Your task to perform on an android device: Clear the shopping cart on walmart. Add "amazon basics triple a" to the cart on walmart, then select checkout. Image 0: 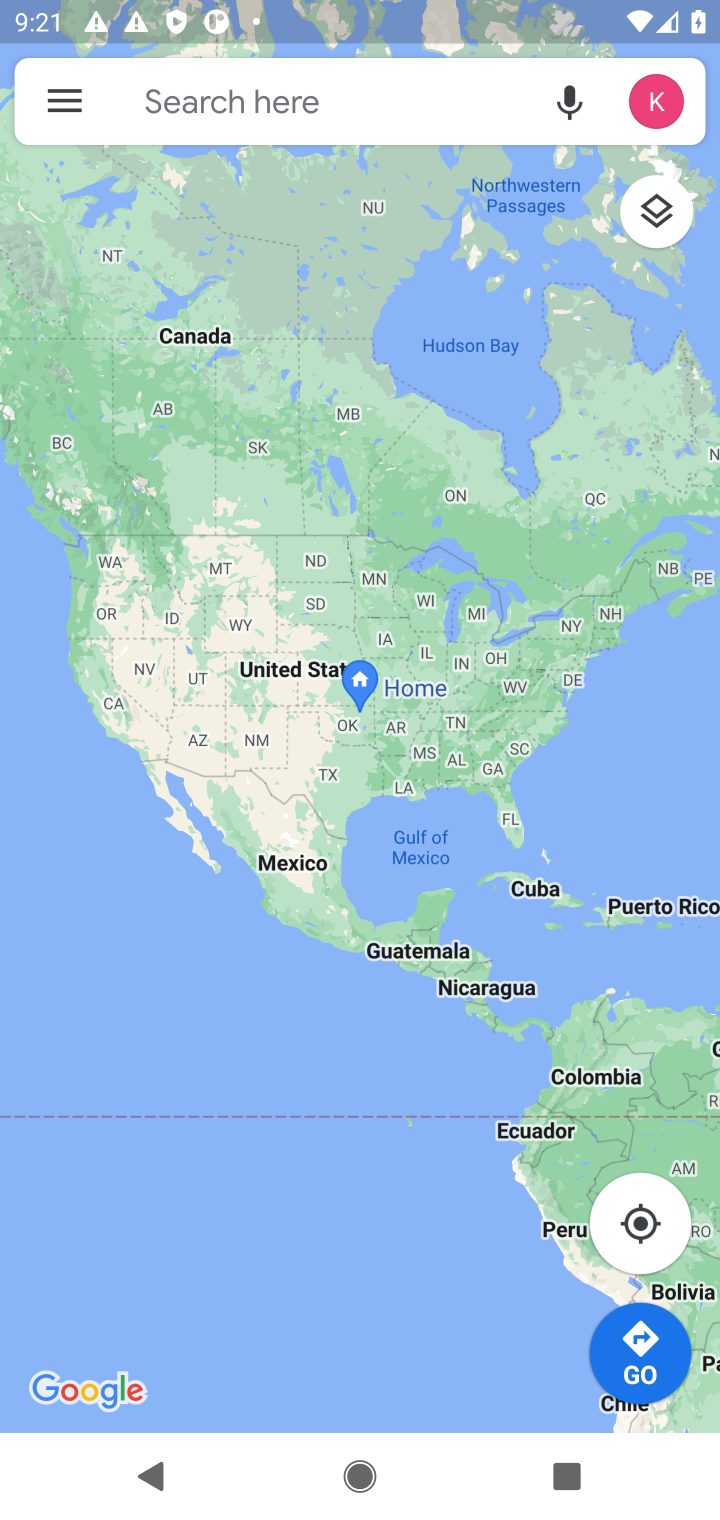
Step 0: press home button
Your task to perform on an android device: Clear the shopping cart on walmart. Add "amazon basics triple a" to the cart on walmart, then select checkout. Image 1: 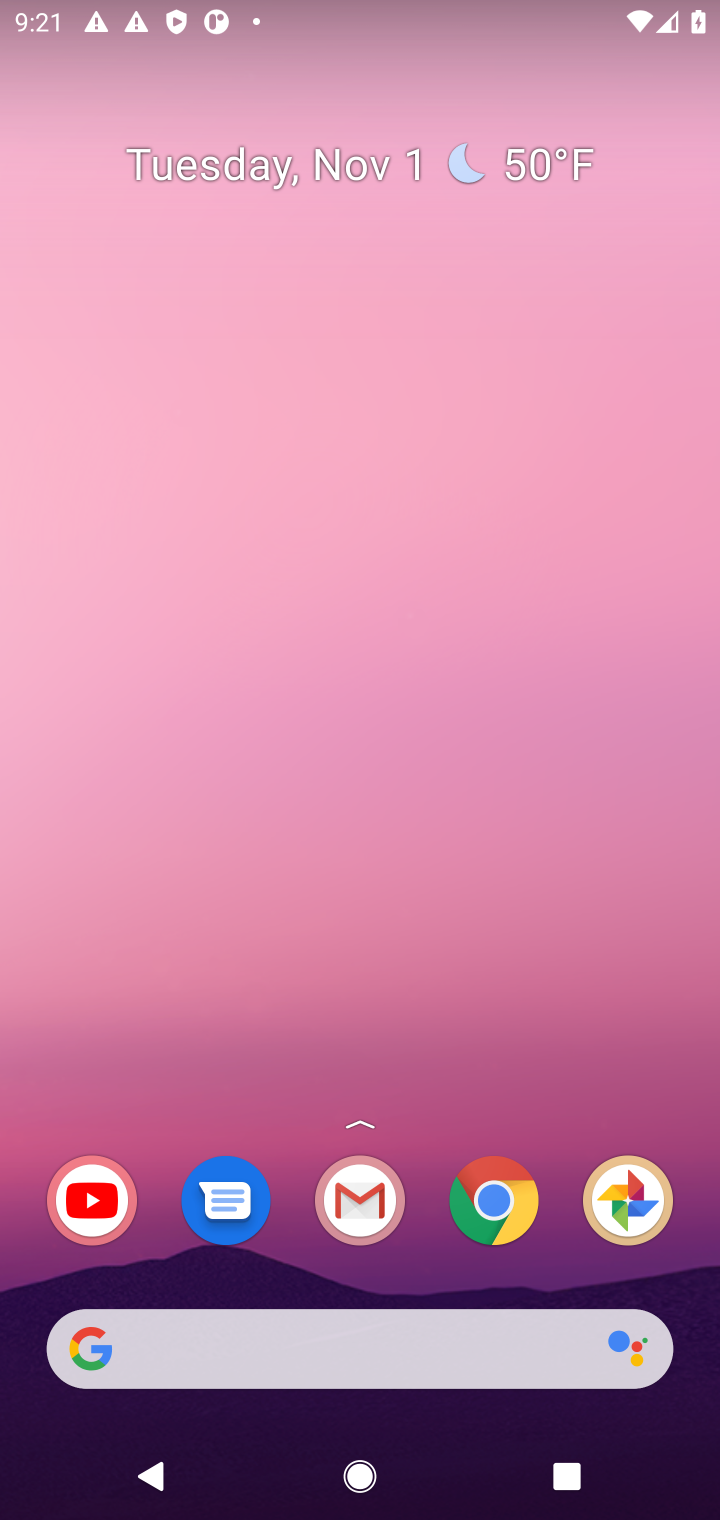
Step 1: click (452, 1366)
Your task to perform on an android device: Clear the shopping cart on walmart. Add "amazon basics triple a" to the cart on walmart, then select checkout. Image 2: 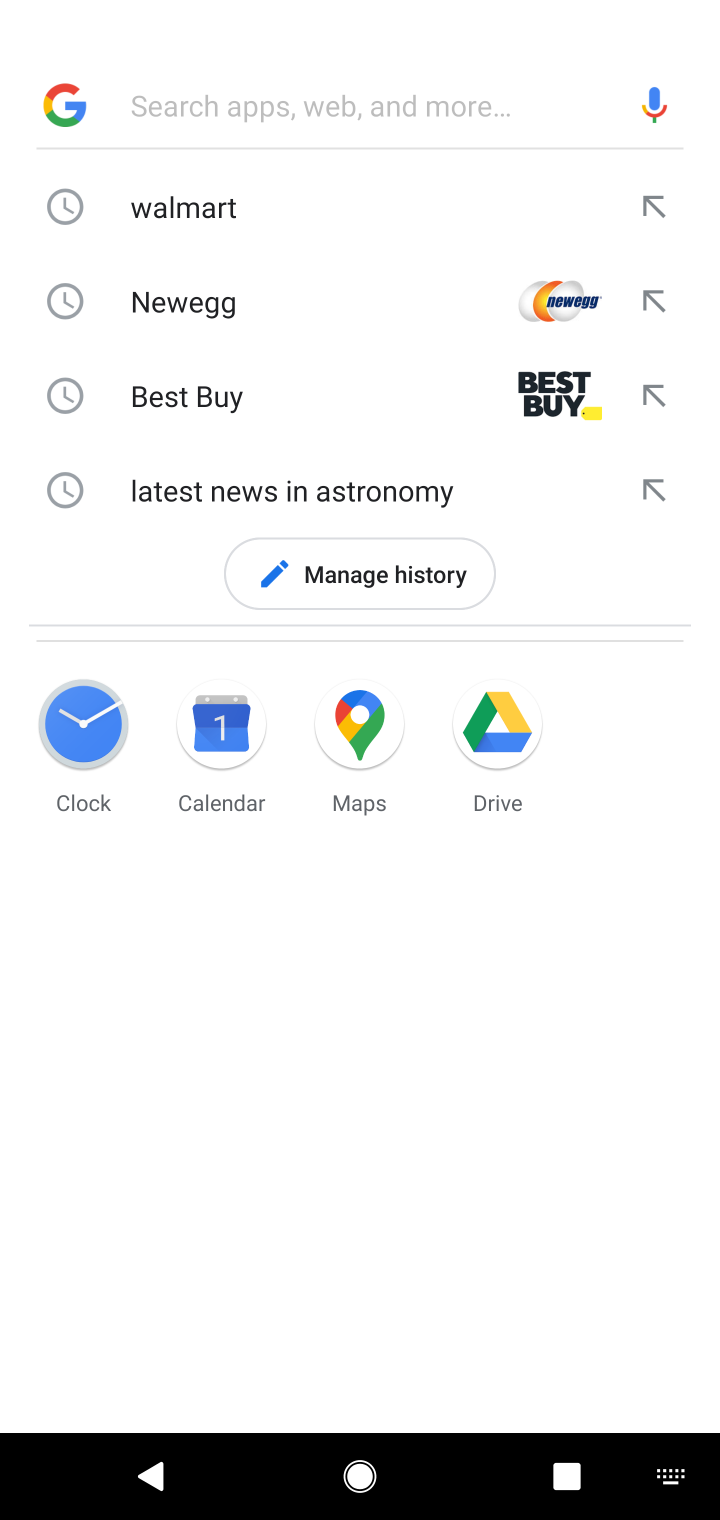
Step 2: type "amazon basics triple a"
Your task to perform on an android device: Clear the shopping cart on walmart. Add "amazon basics triple a" to the cart on walmart, then select checkout. Image 3: 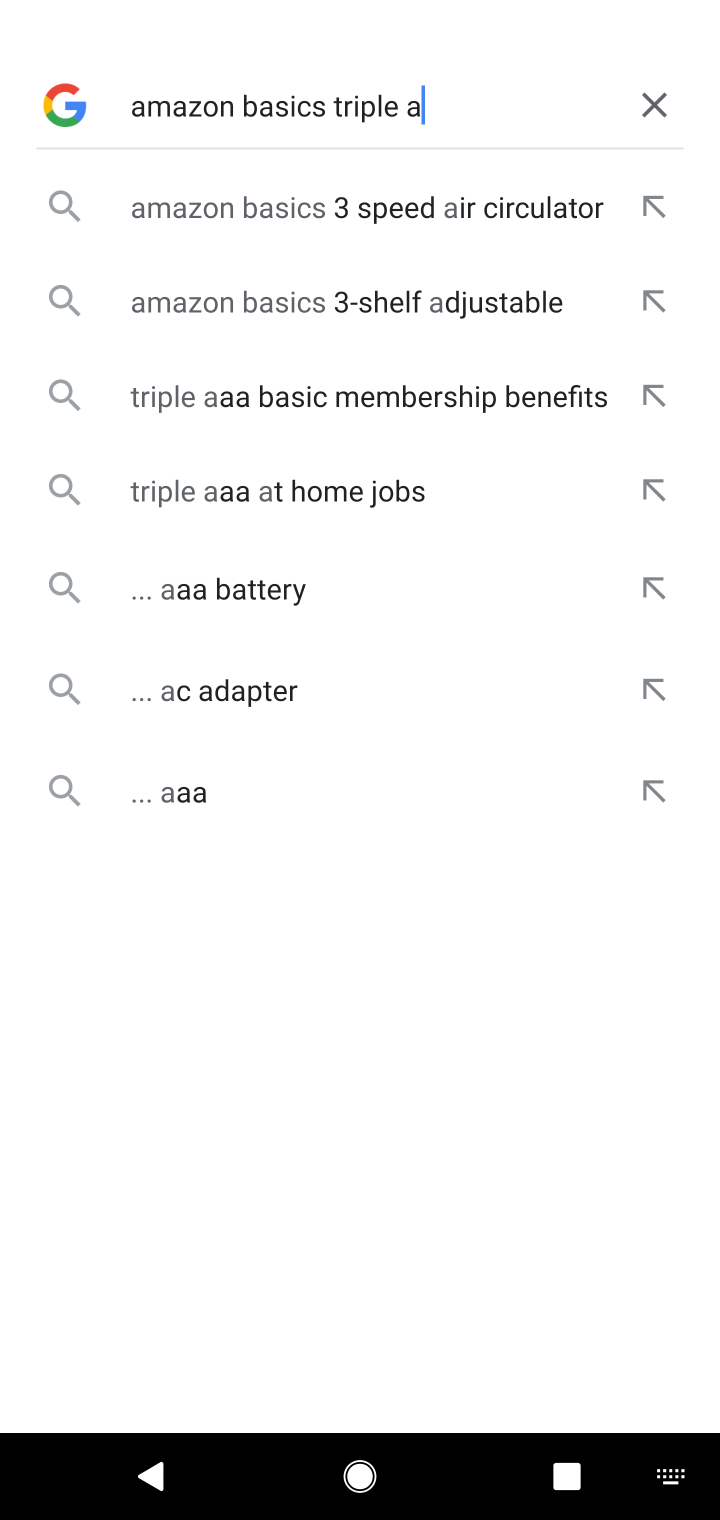
Step 3: type ""
Your task to perform on an android device: Clear the shopping cart on walmart. Add "amazon basics triple a" to the cart on walmart, then select checkout. Image 4: 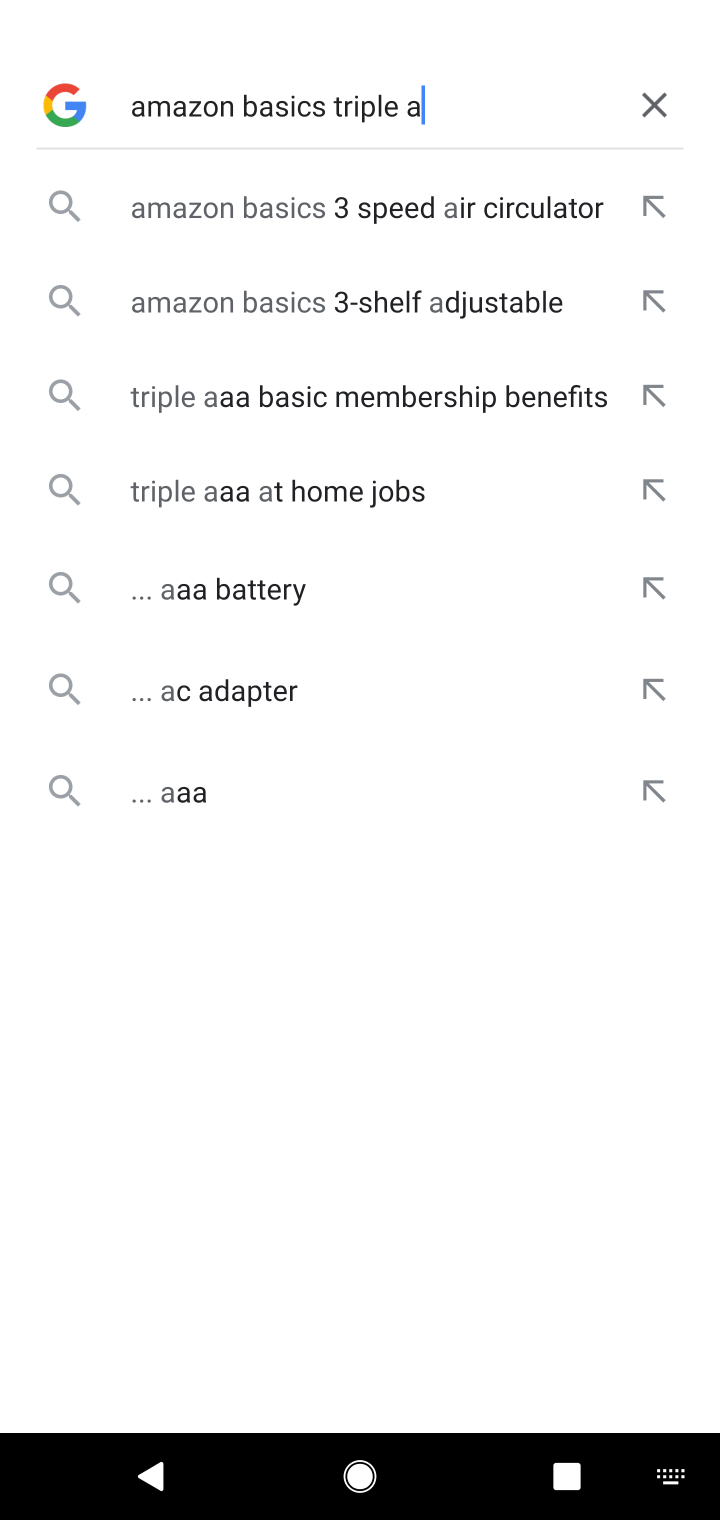
Step 4: click (638, 90)
Your task to perform on an android device: Clear the shopping cart on walmart. Add "amazon basics triple a" to the cart on walmart, then select checkout. Image 5: 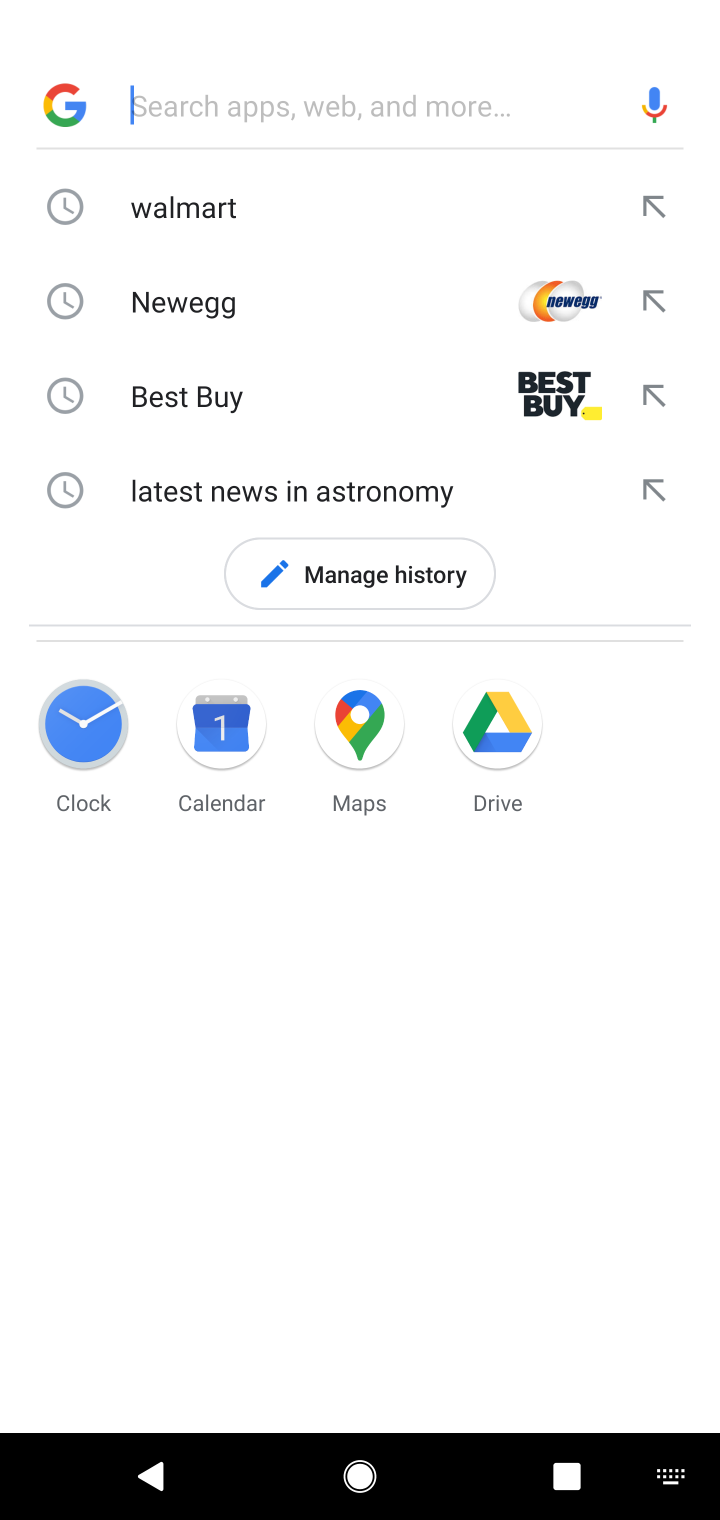
Step 5: type " walmart"
Your task to perform on an android device: Clear the shopping cart on walmart. Add "amazon basics triple a" to the cart on walmart, then select checkout. Image 6: 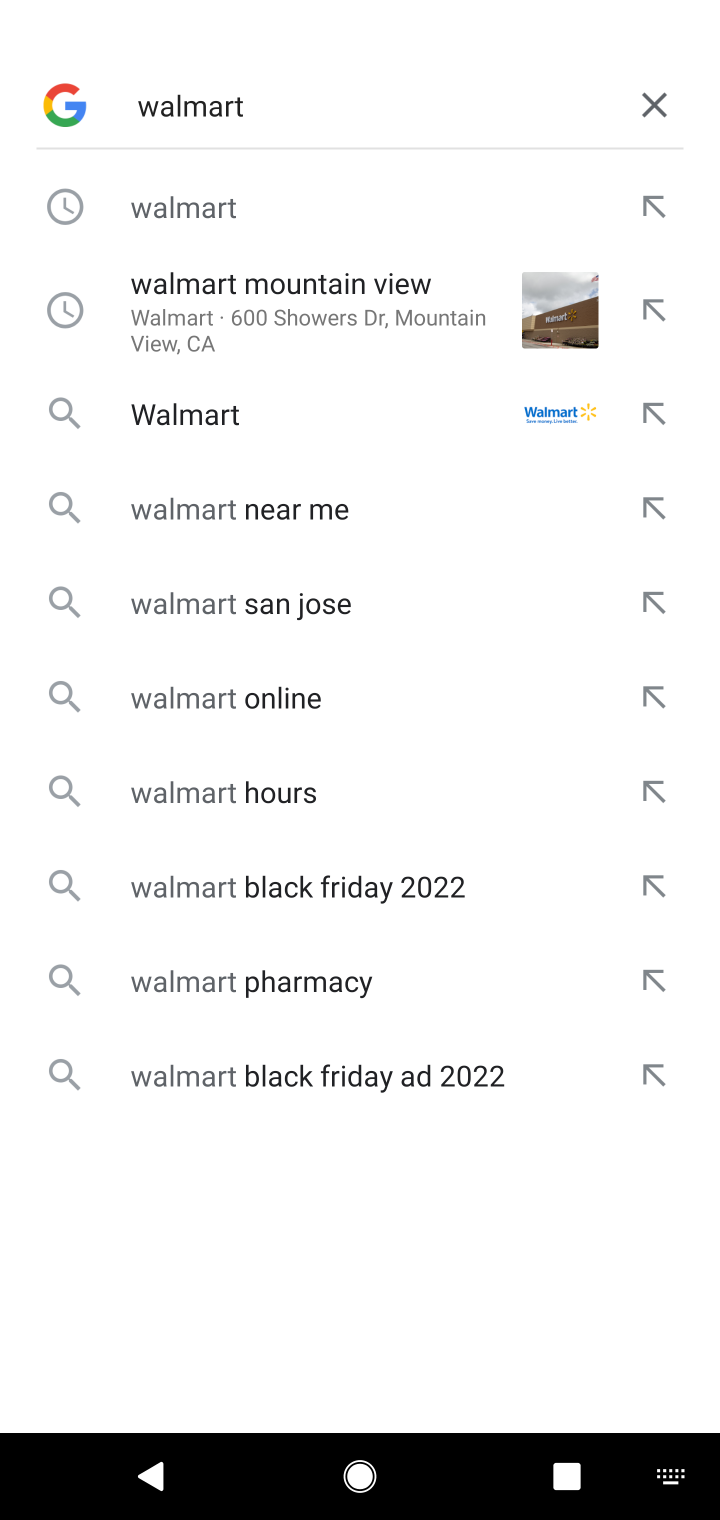
Step 6: click (356, 226)
Your task to perform on an android device: Clear the shopping cart on walmart. Add "amazon basics triple a" to the cart on walmart, then select checkout. Image 7: 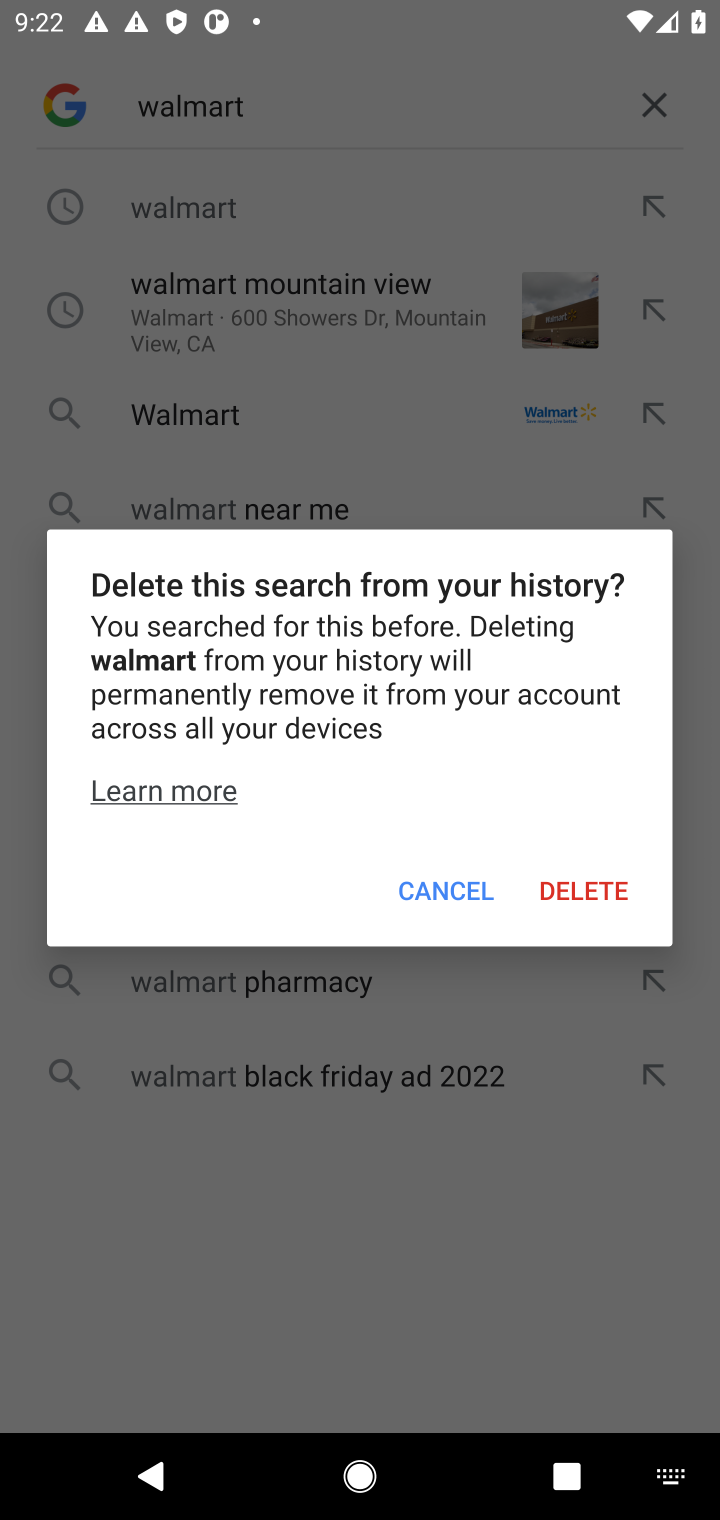
Step 7: click (387, 894)
Your task to perform on an android device: Clear the shopping cart on walmart. Add "amazon basics triple a" to the cart on walmart, then select checkout. Image 8: 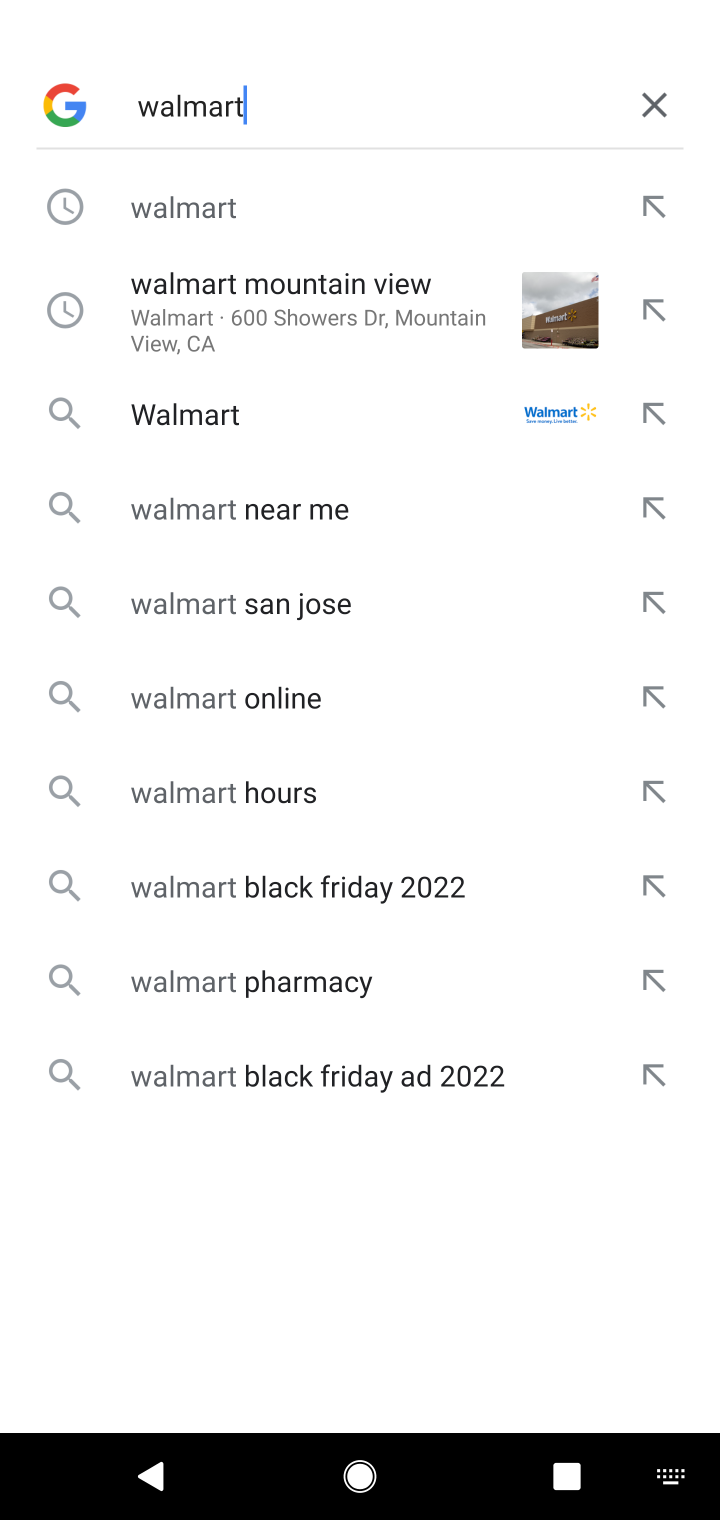
Step 8: click (183, 210)
Your task to perform on an android device: Clear the shopping cart on walmart. Add "amazon basics triple a" to the cart on walmart, then select checkout. Image 9: 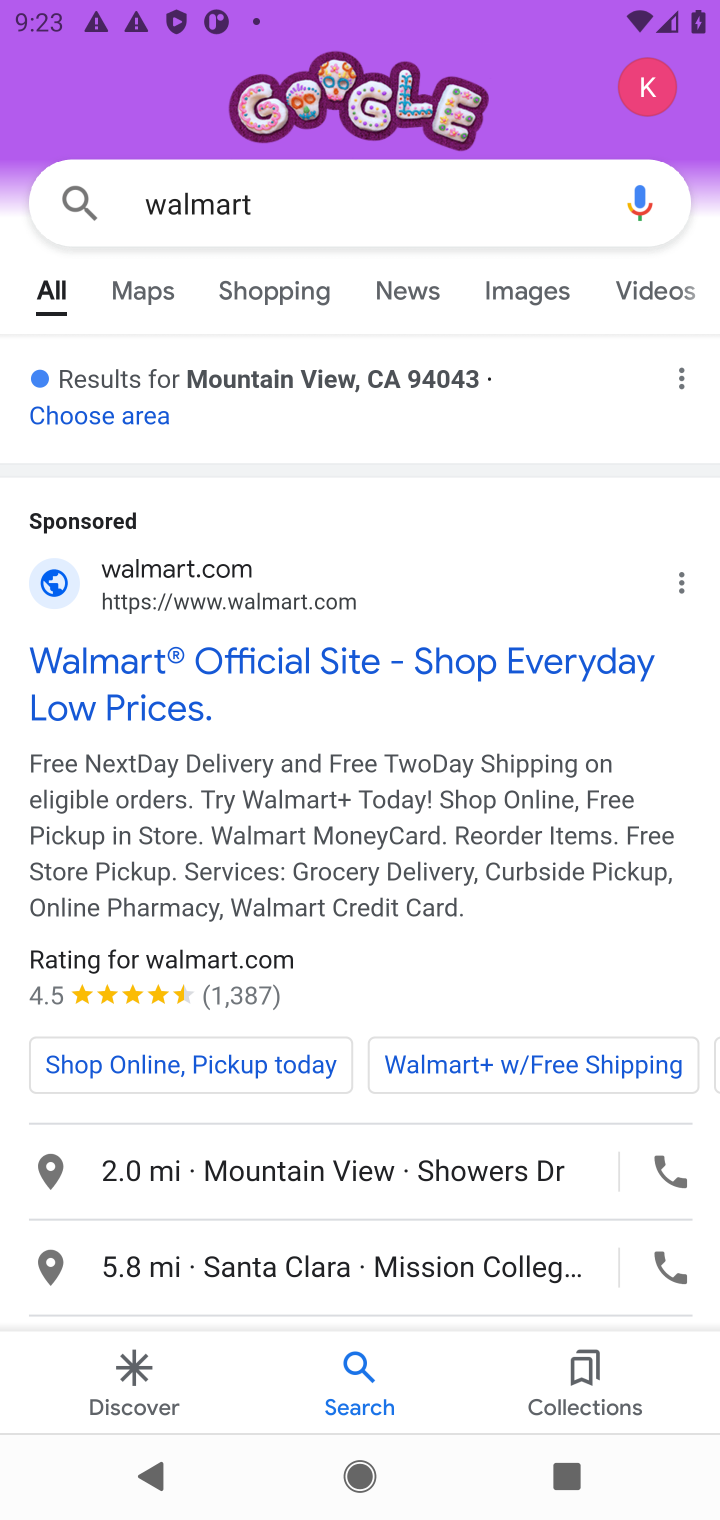
Step 9: click (213, 705)
Your task to perform on an android device: Clear the shopping cart on walmart. Add "amazon basics triple a" to the cart on walmart, then select checkout. Image 10: 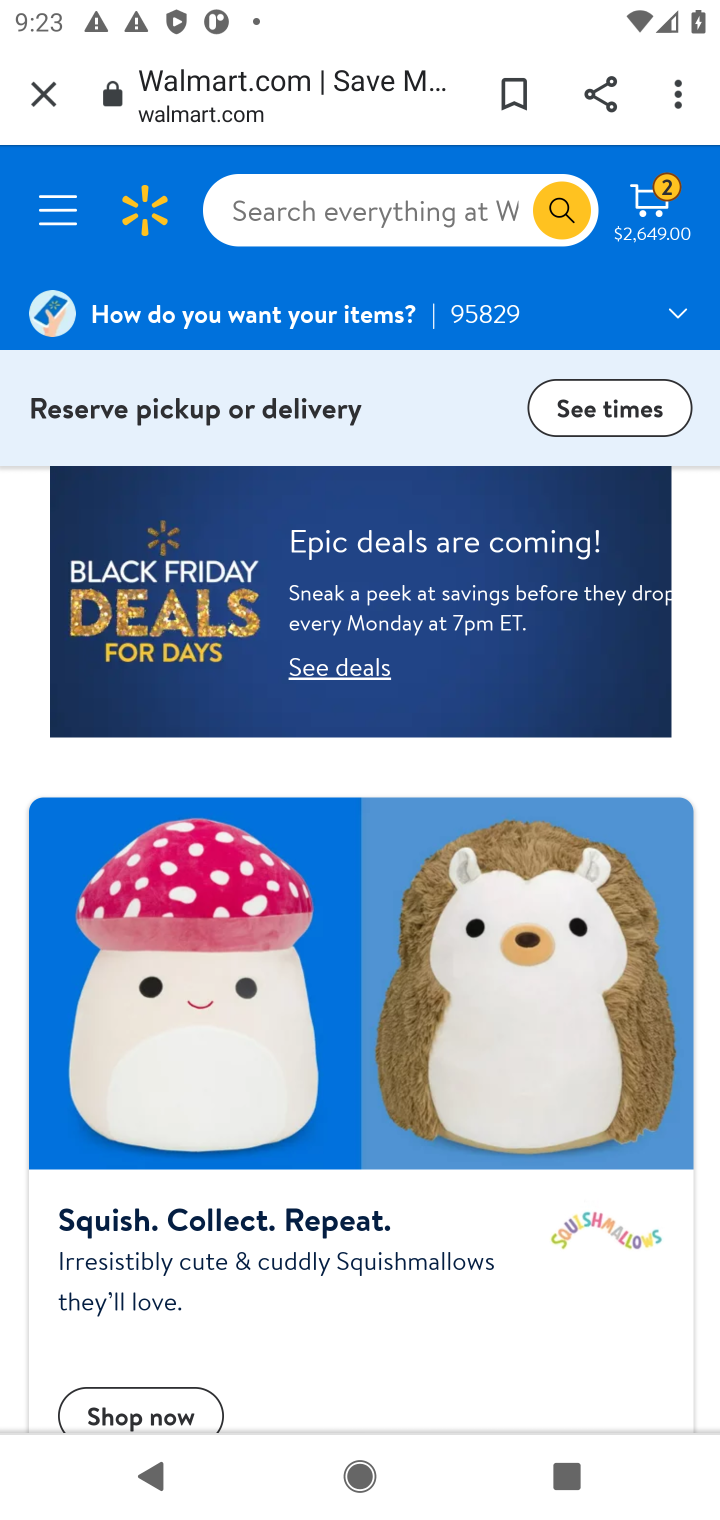
Step 10: click (240, 204)
Your task to perform on an android device: Clear the shopping cart on walmart. Add "amazon basics triple a" to the cart on walmart, then select checkout. Image 11: 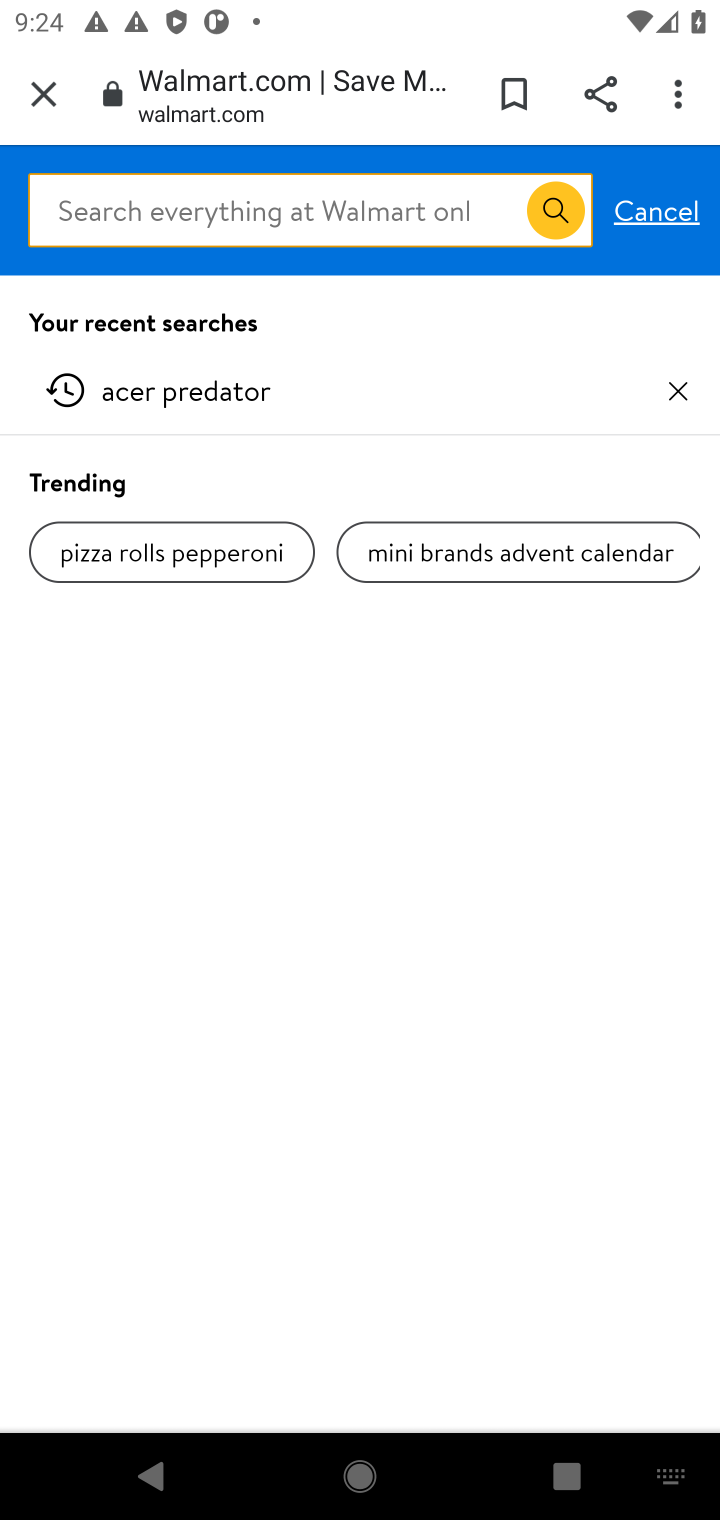
Step 11: type "amazon basics triple a"
Your task to perform on an android device: Clear the shopping cart on walmart. Add "amazon basics triple a" to the cart on walmart, then select checkout. Image 12: 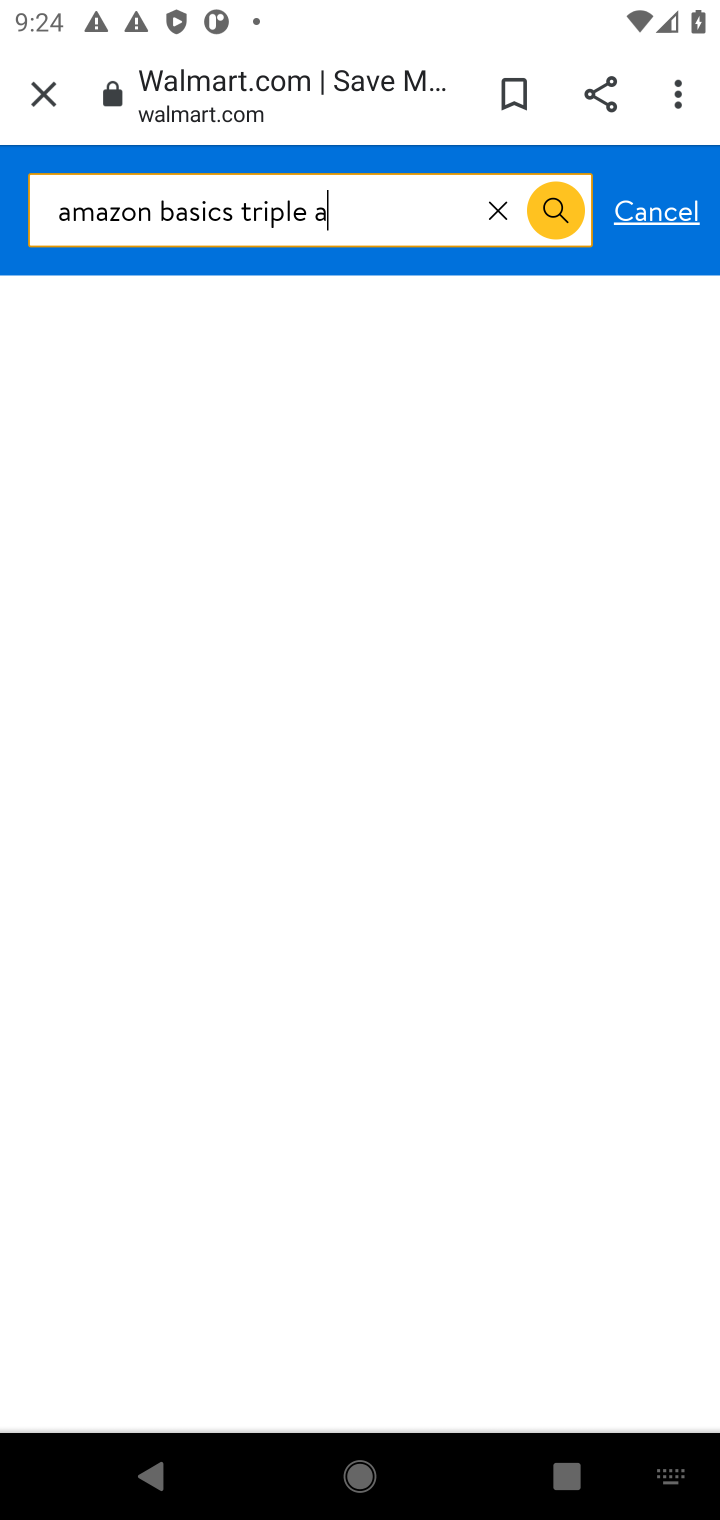
Step 12: click (573, 202)
Your task to perform on an android device: Clear the shopping cart on walmart. Add "amazon basics triple a" to the cart on walmart, then select checkout. Image 13: 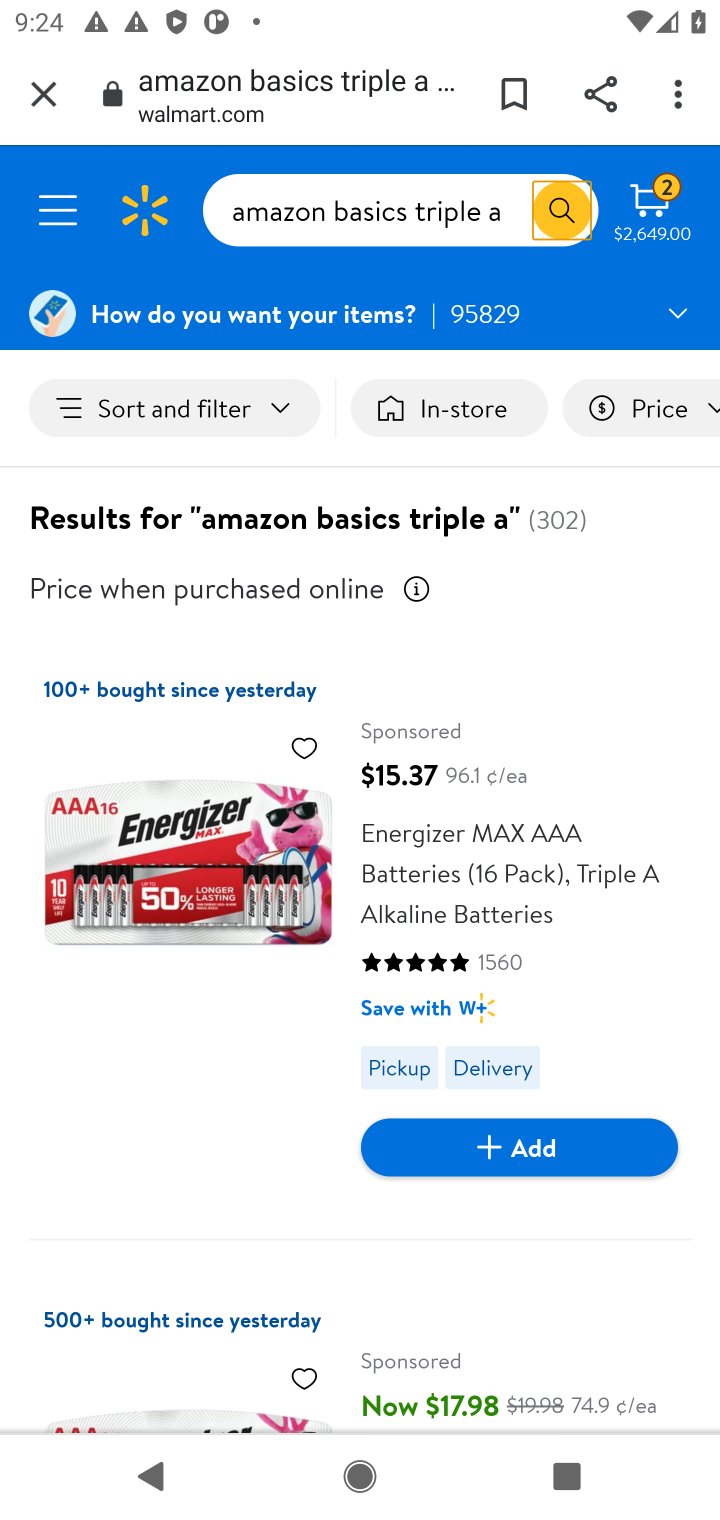
Step 13: click (547, 1139)
Your task to perform on an android device: Clear the shopping cart on walmart. Add "amazon basics triple a" to the cart on walmart, then select checkout. Image 14: 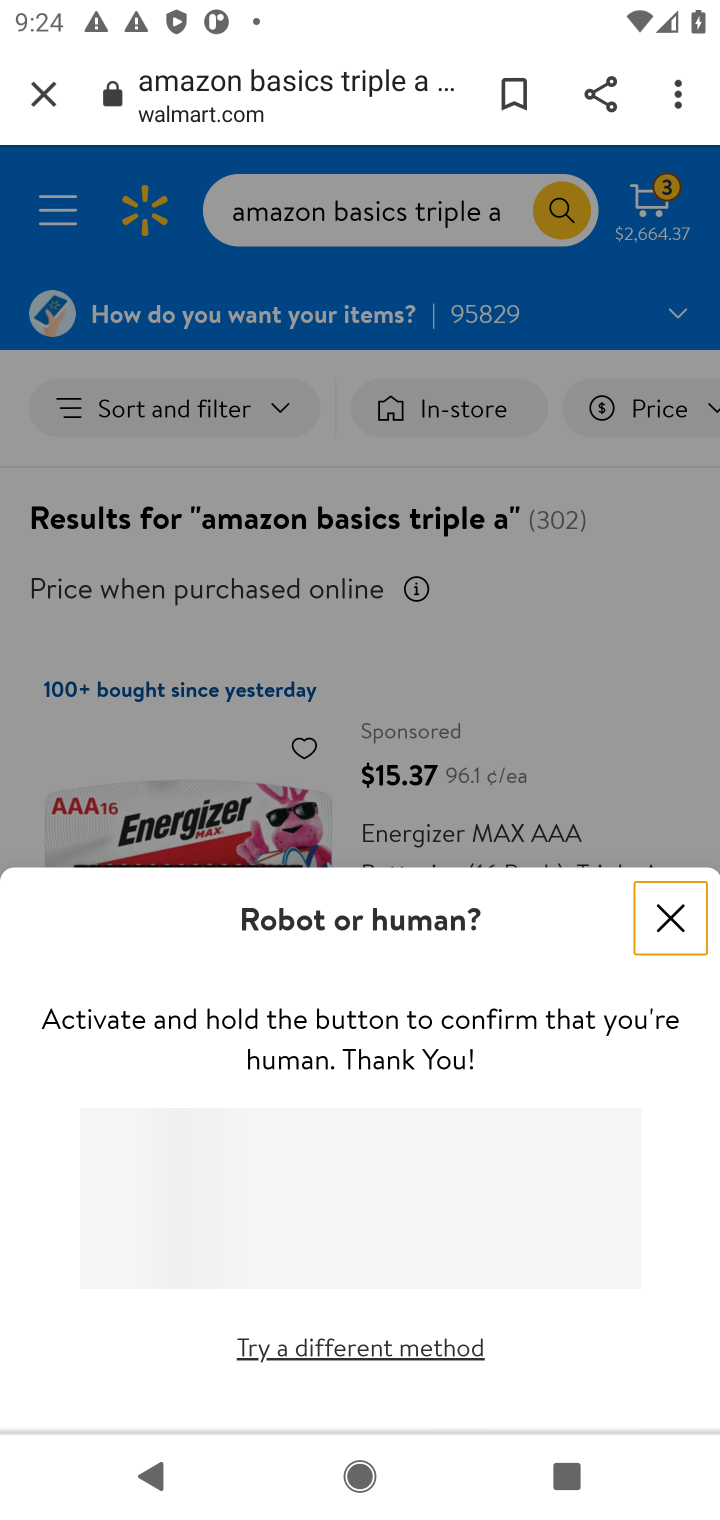
Step 14: click (667, 1084)
Your task to perform on an android device: Clear the shopping cart on walmart. Add "amazon basics triple a" to the cart on walmart, then select checkout. Image 15: 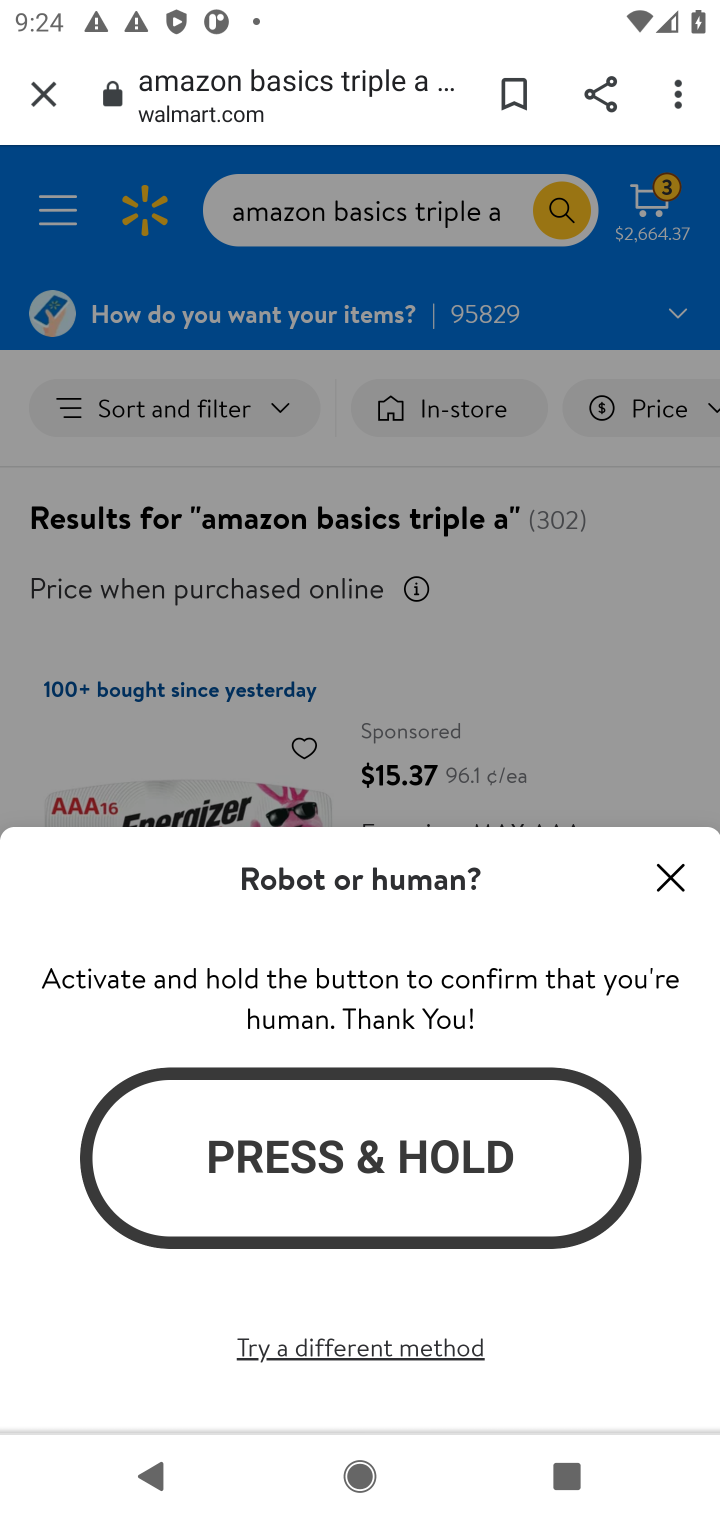
Step 15: click (659, 873)
Your task to perform on an android device: Clear the shopping cart on walmart. Add "amazon basics triple a" to the cart on walmart, then select checkout. Image 16: 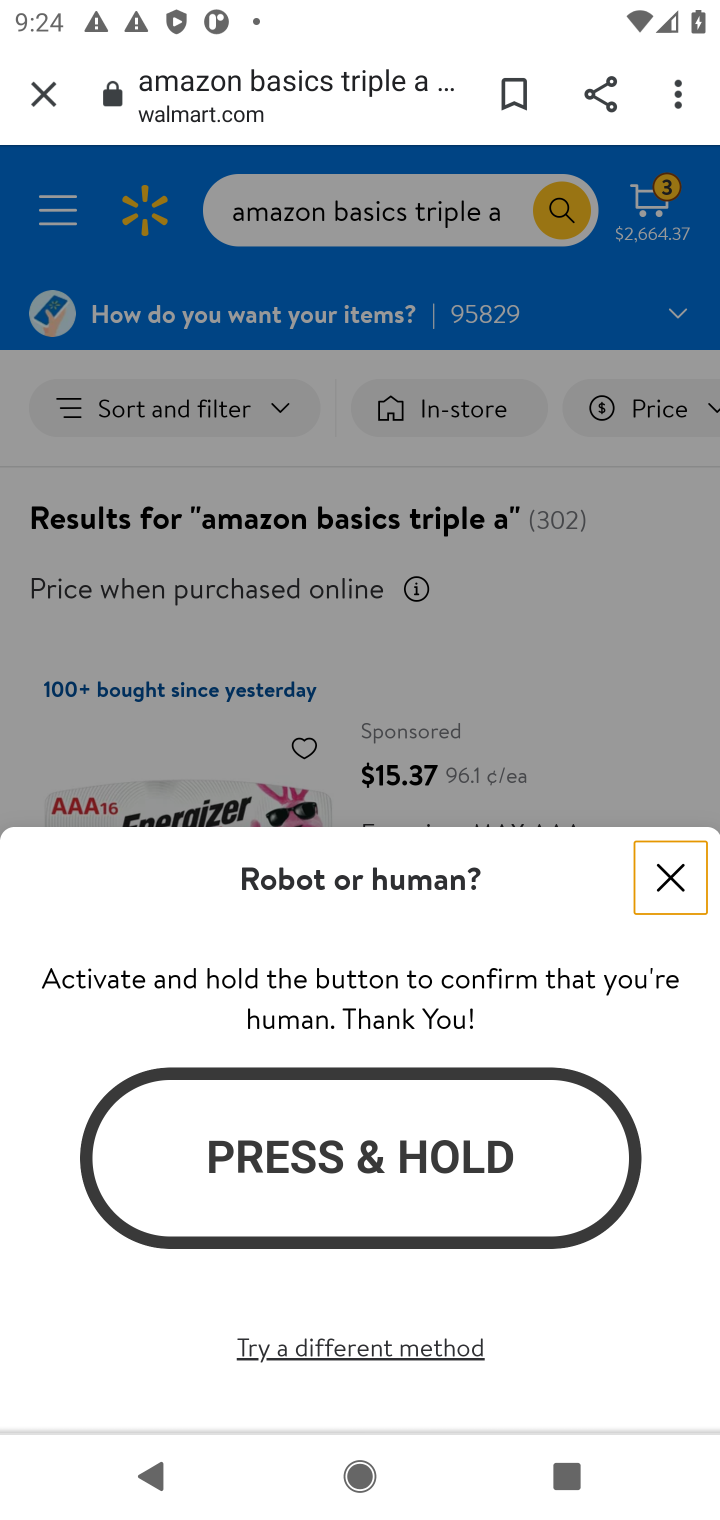
Step 16: click (675, 895)
Your task to perform on an android device: Clear the shopping cart on walmart. Add "amazon basics triple a" to the cart on walmart, then select checkout. Image 17: 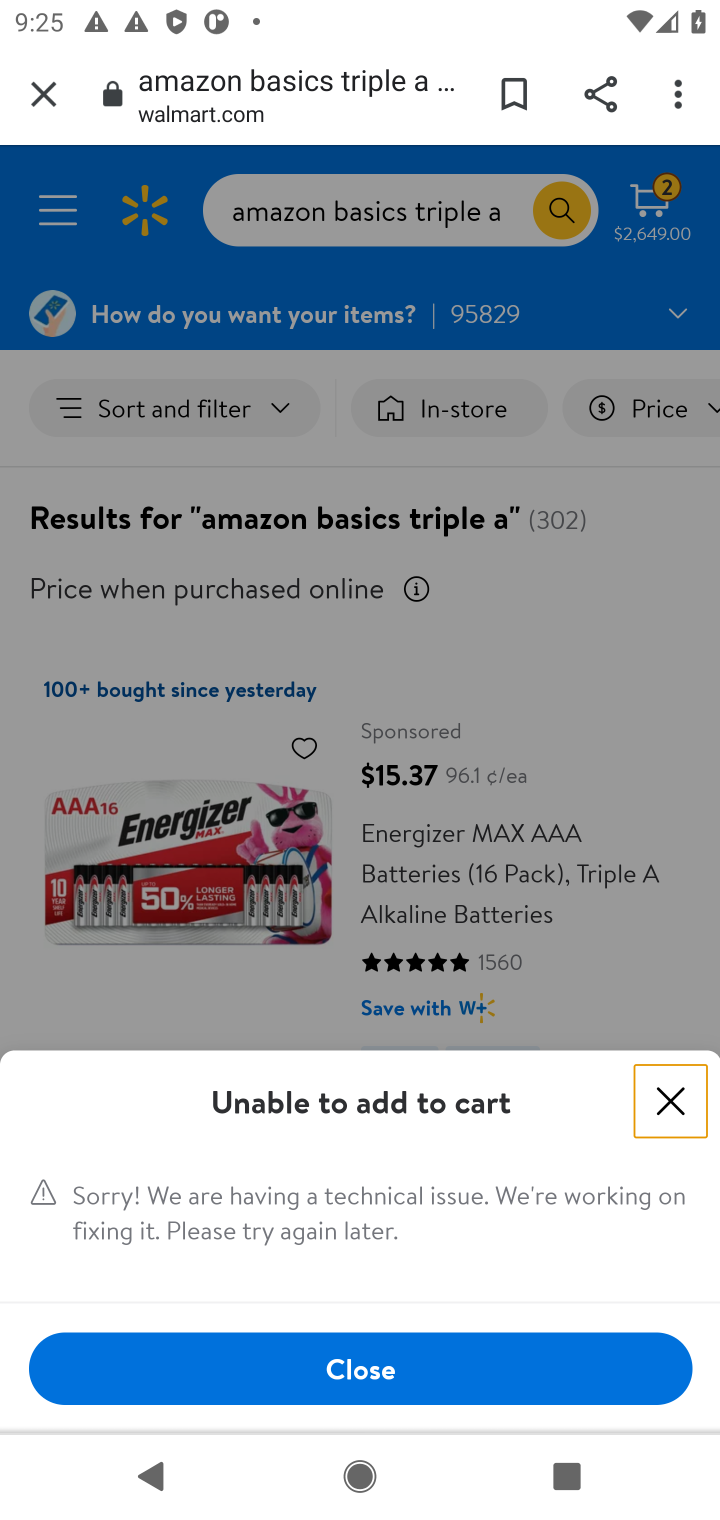
Step 17: click (663, 1109)
Your task to perform on an android device: Clear the shopping cart on walmart. Add "amazon basics triple a" to the cart on walmart, then select checkout. Image 18: 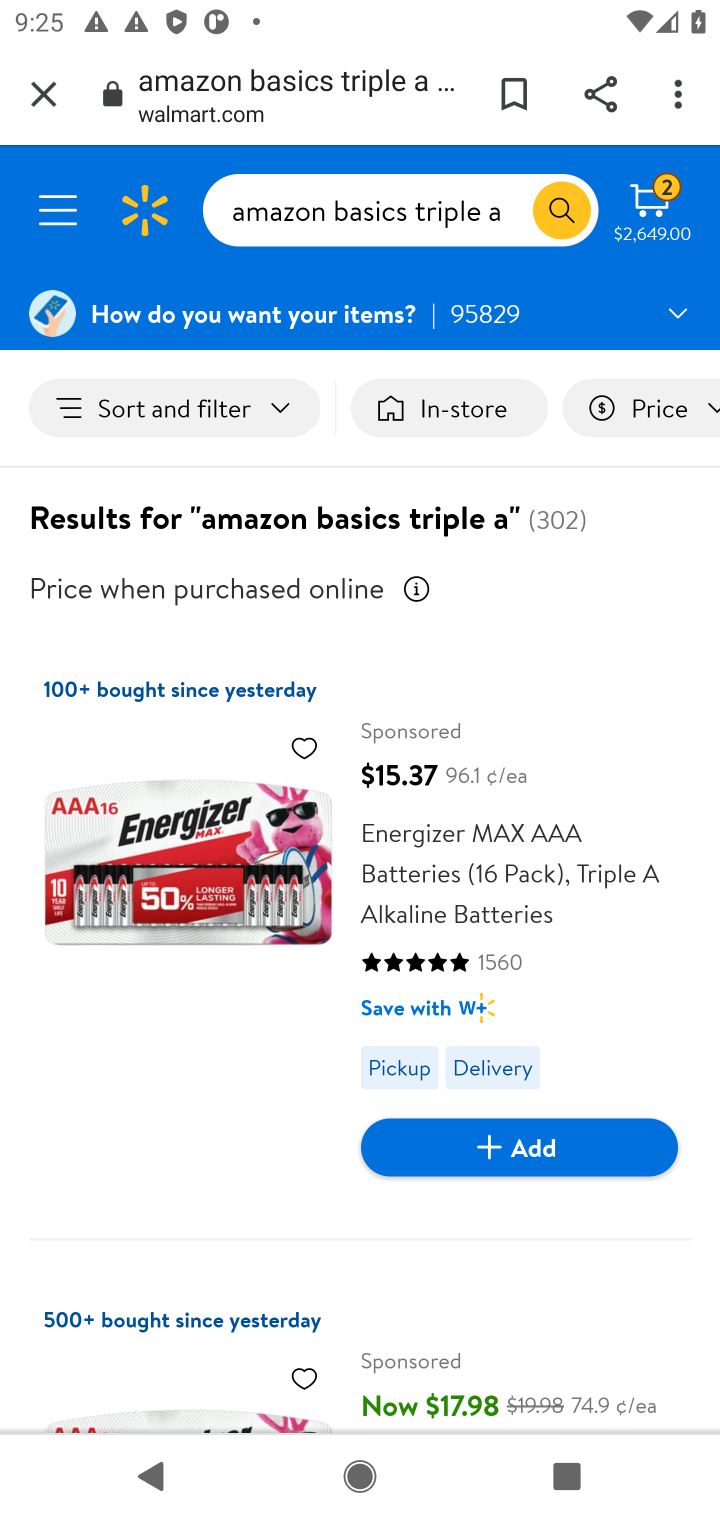
Step 18: click (653, 220)
Your task to perform on an android device: Clear the shopping cart on walmart. Add "amazon basics triple a" to the cart on walmart, then select checkout. Image 19: 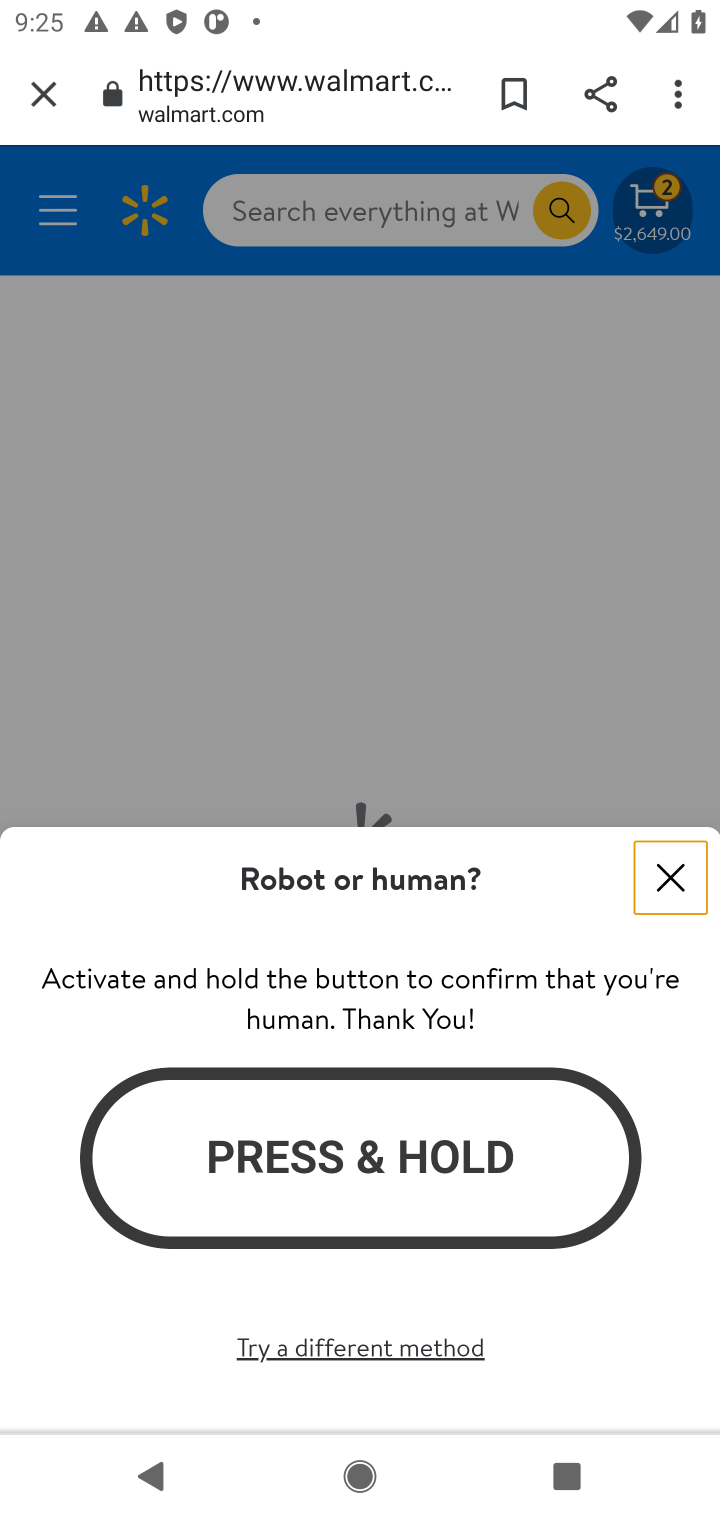
Step 19: click (658, 879)
Your task to perform on an android device: Clear the shopping cart on walmart. Add "amazon basics triple a" to the cart on walmart, then select checkout. Image 20: 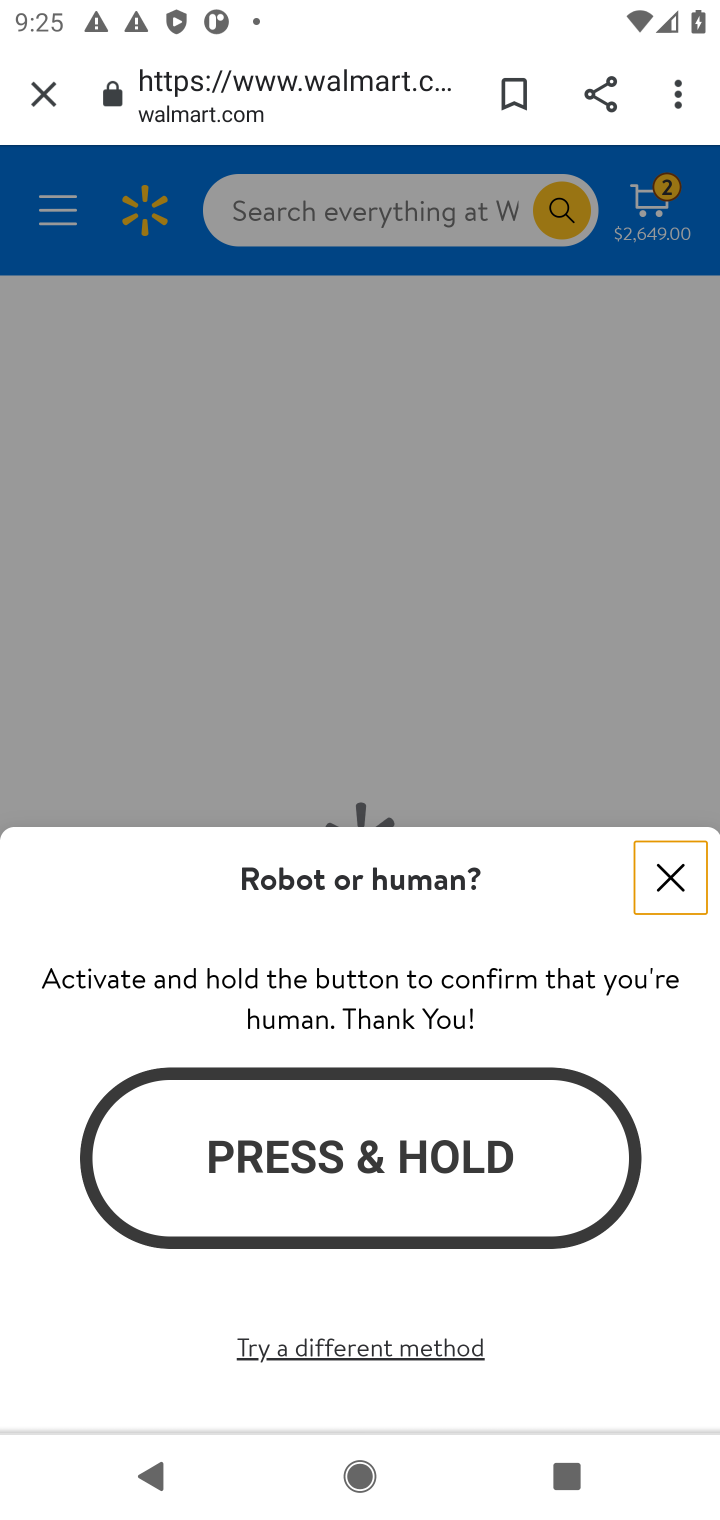
Step 20: click (668, 861)
Your task to perform on an android device: Clear the shopping cart on walmart. Add "amazon basics triple a" to the cart on walmart, then select checkout. Image 21: 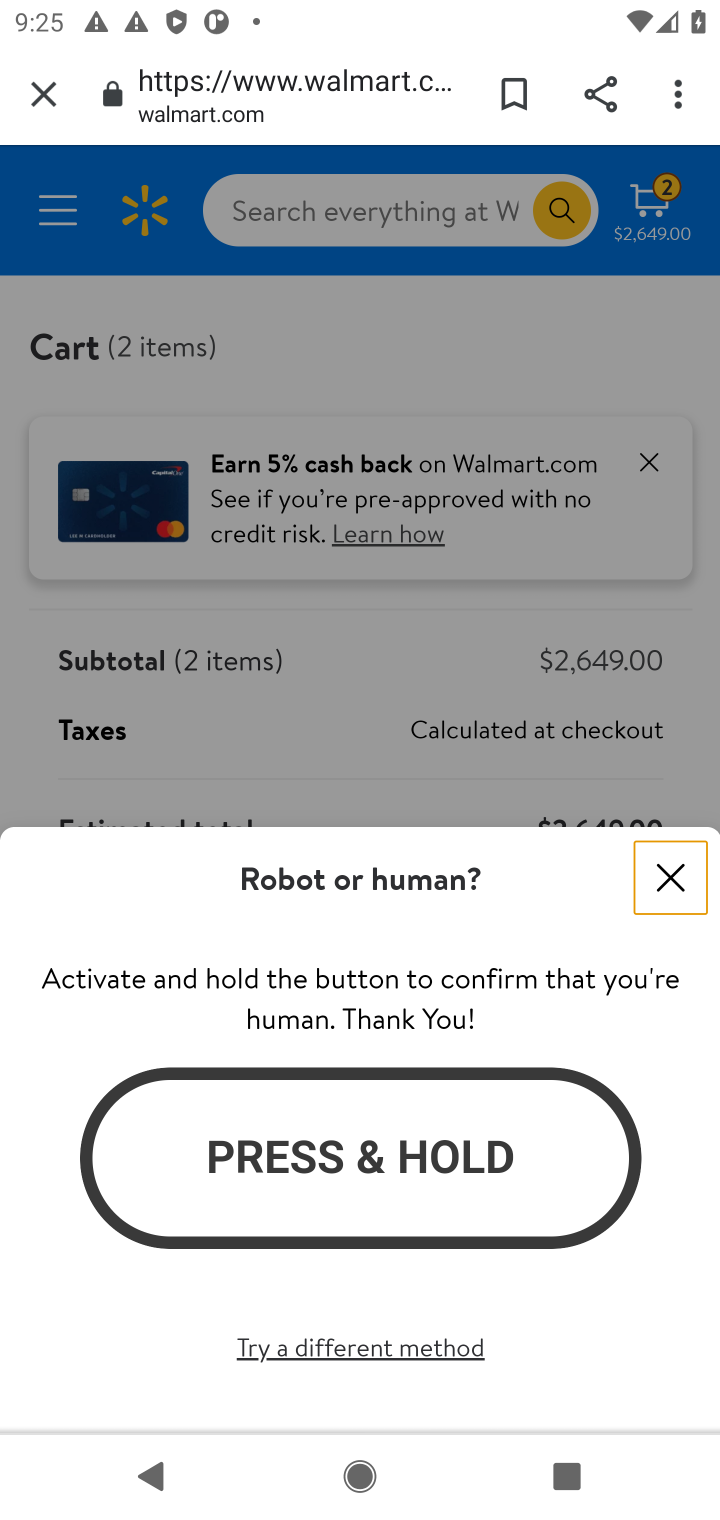
Step 21: click (667, 866)
Your task to perform on an android device: Clear the shopping cart on walmart. Add "amazon basics triple a" to the cart on walmart, then select checkout. Image 22: 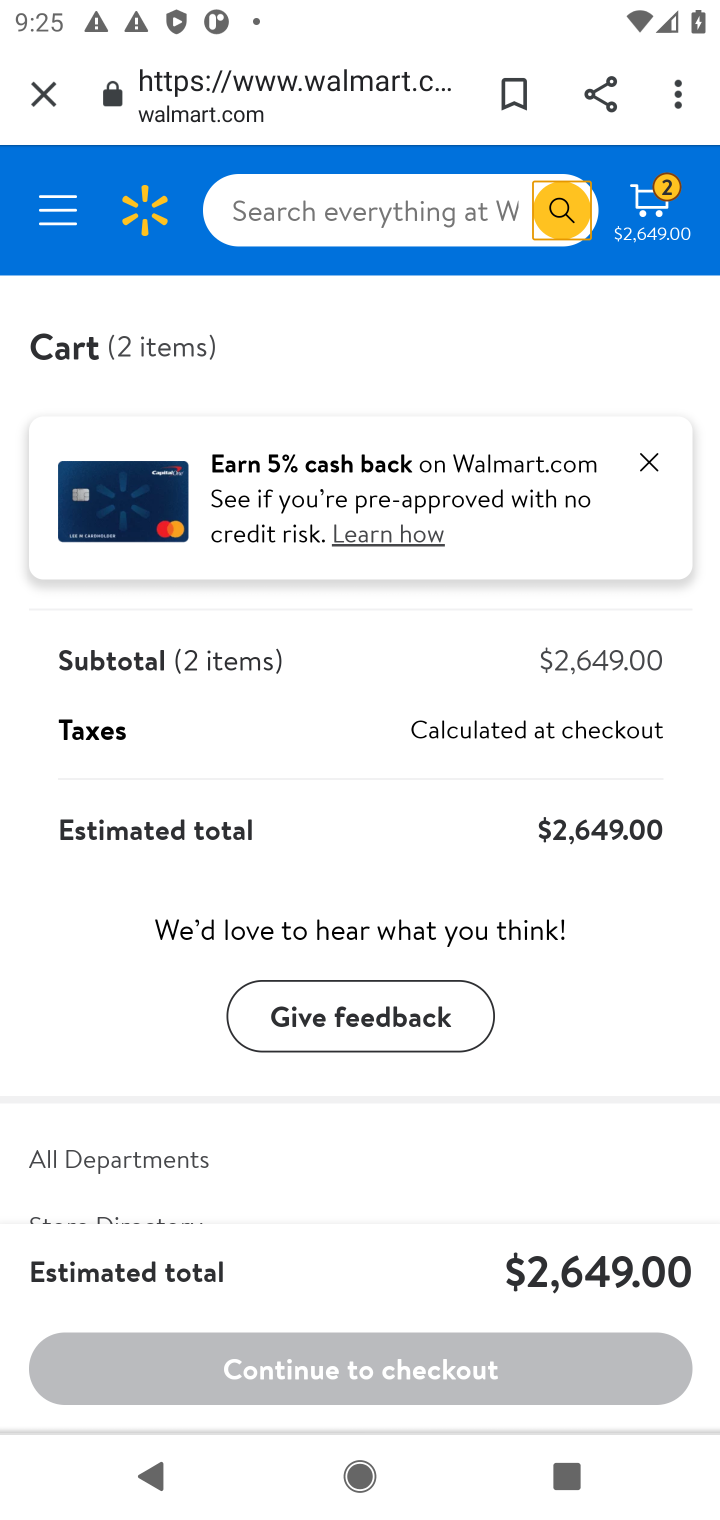
Step 22: click (671, 221)
Your task to perform on an android device: Clear the shopping cart on walmart. Add "amazon basics triple a" to the cart on walmart, then select checkout. Image 23: 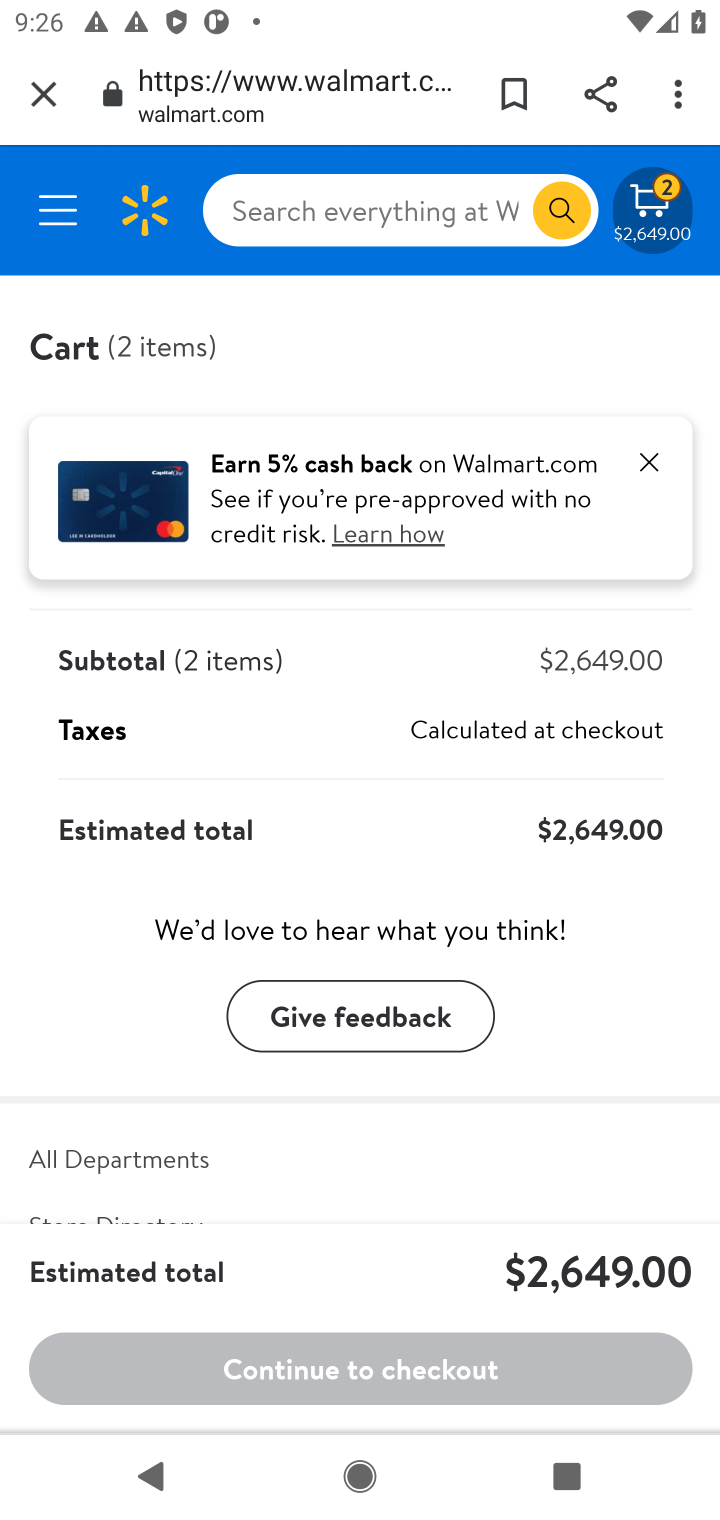
Step 23: click (526, 1389)
Your task to perform on an android device: Clear the shopping cart on walmart. Add "amazon basics triple a" to the cart on walmart, then select checkout. Image 24: 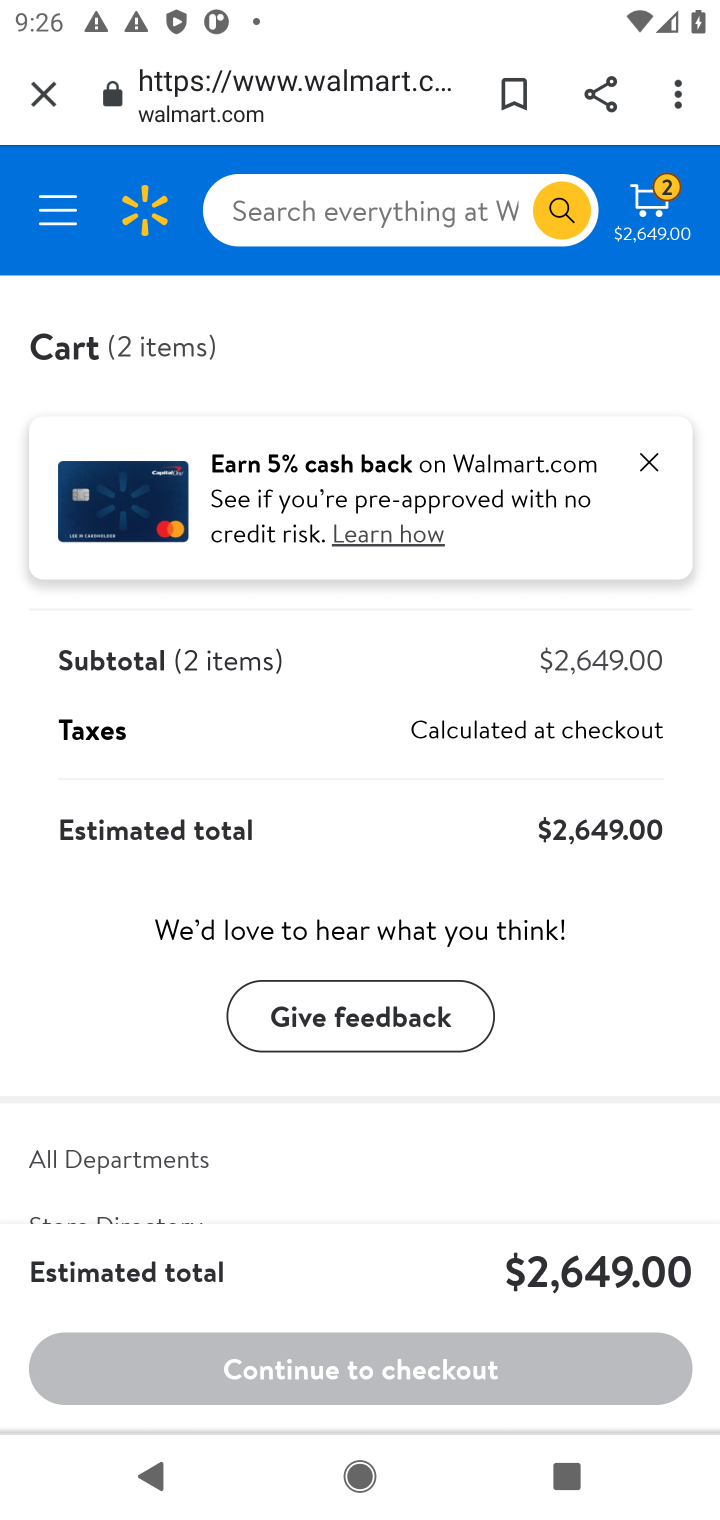
Step 24: click (501, 1340)
Your task to perform on an android device: Clear the shopping cart on walmart. Add "amazon basics triple a" to the cart on walmart, then select checkout. Image 25: 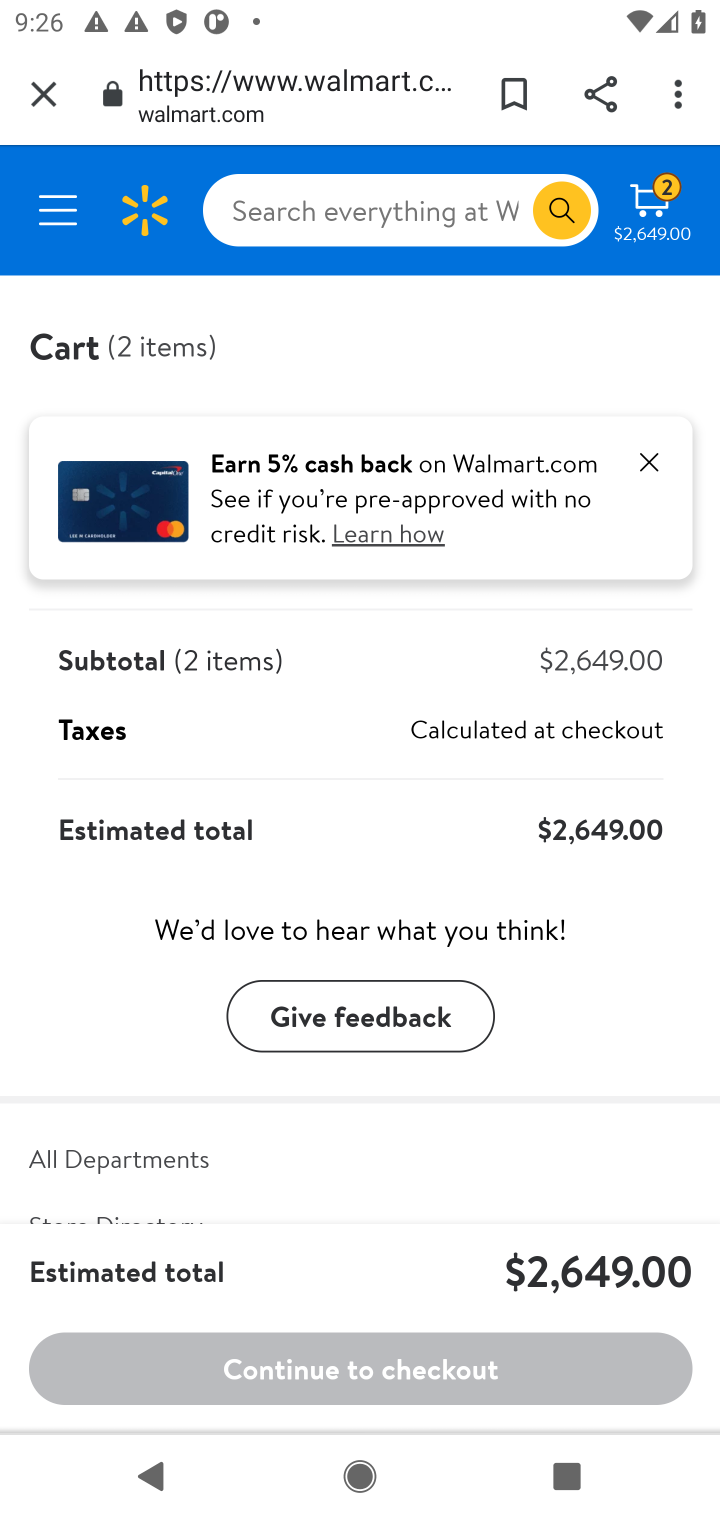
Step 25: click (632, 224)
Your task to perform on an android device: Clear the shopping cart on walmart. Add "amazon basics triple a" to the cart on walmart, then select checkout. Image 26: 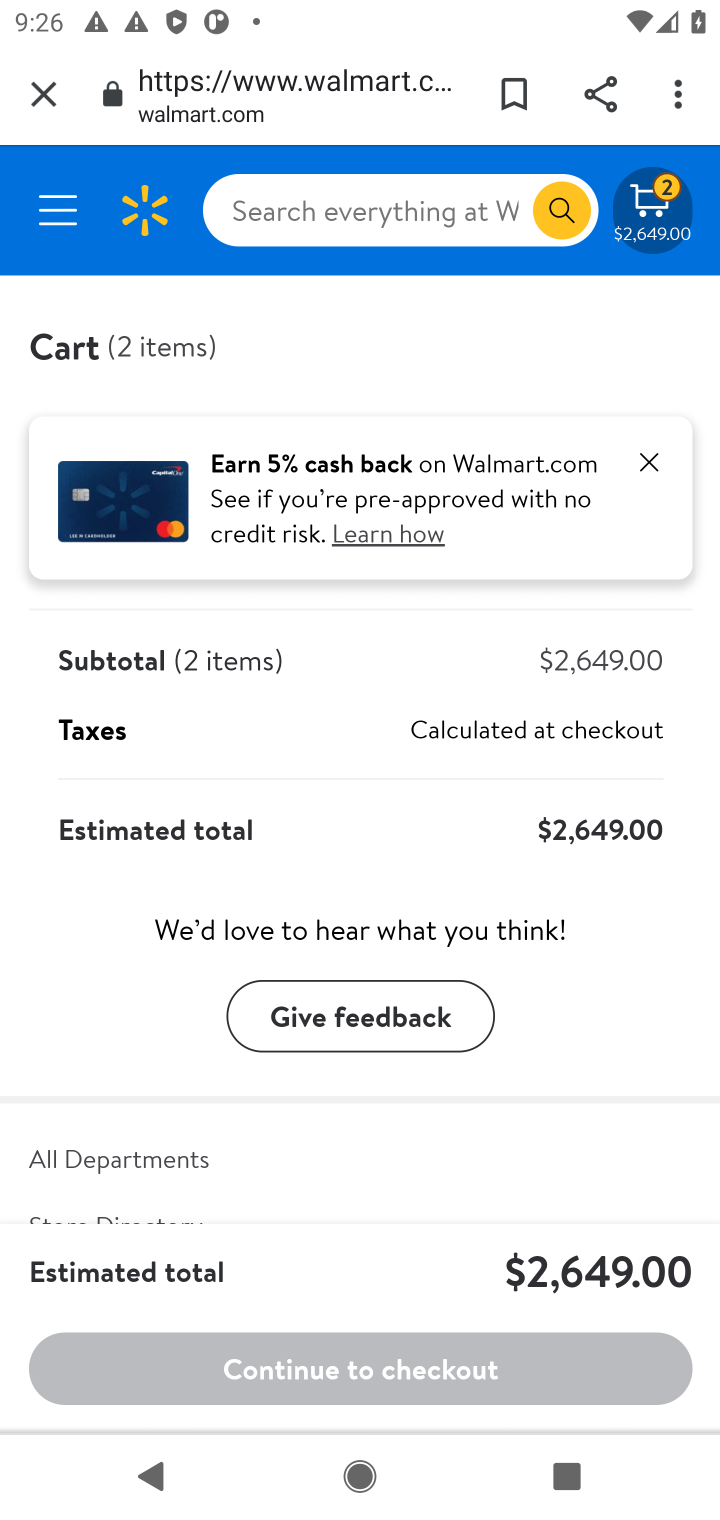
Step 26: click (662, 230)
Your task to perform on an android device: Clear the shopping cart on walmart. Add "amazon basics triple a" to the cart on walmart, then select checkout. Image 27: 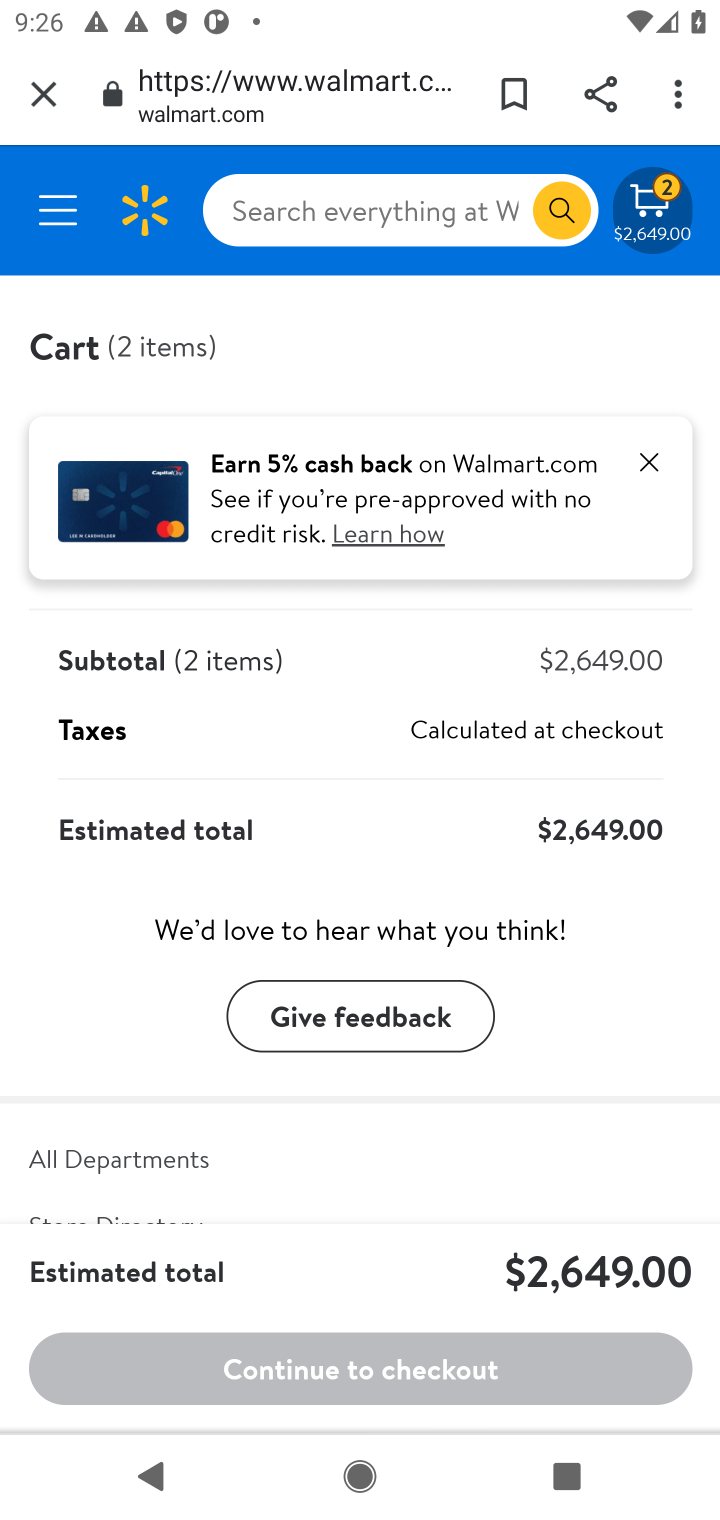
Step 27: task complete